Your task to perform on an android device: Go to Maps Image 0: 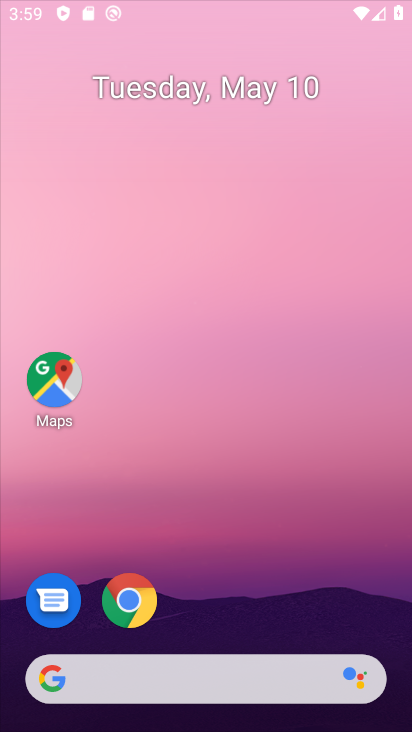
Step 0: drag from (243, 365) to (263, 154)
Your task to perform on an android device: Go to Maps Image 1: 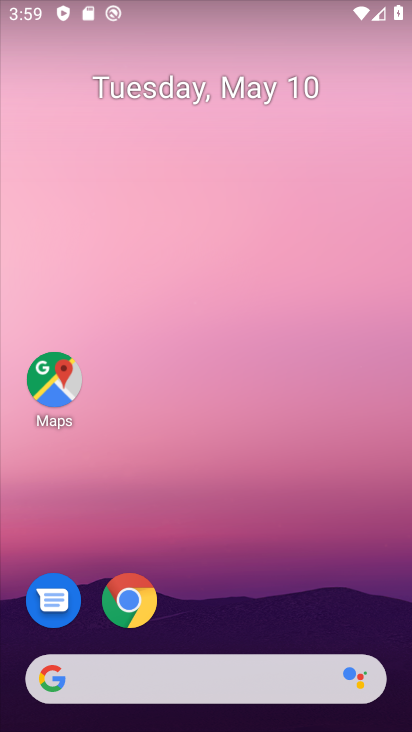
Step 1: click (71, 402)
Your task to perform on an android device: Go to Maps Image 2: 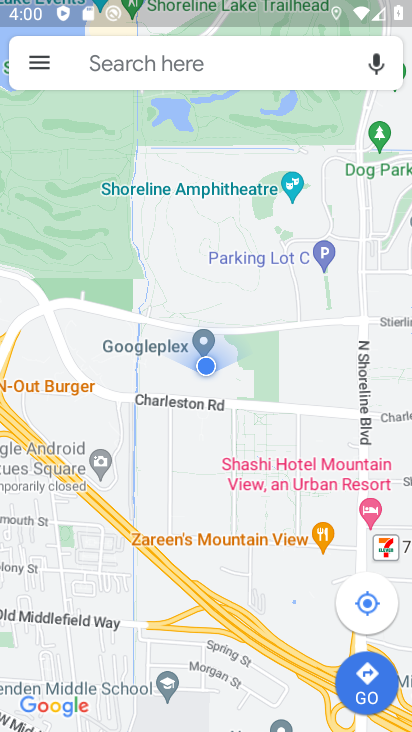
Step 2: task complete